Your task to perform on an android device: change alarm snooze length Image 0: 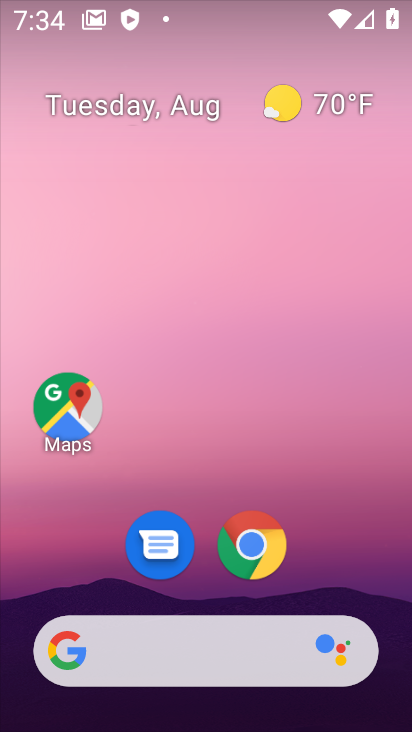
Step 0: drag from (162, 619) to (223, 147)
Your task to perform on an android device: change alarm snooze length Image 1: 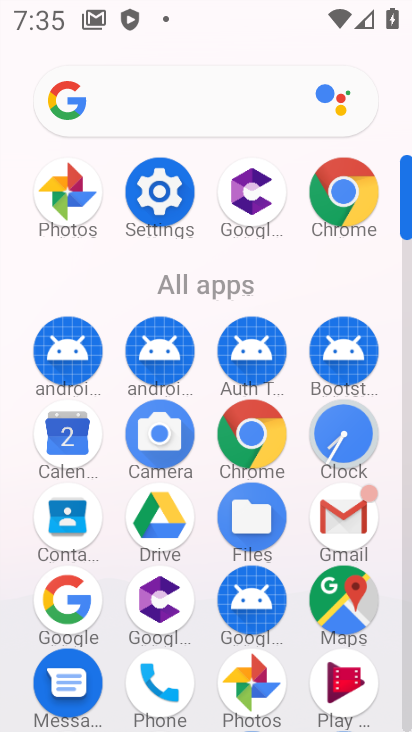
Step 1: drag from (178, 477) to (212, 246)
Your task to perform on an android device: change alarm snooze length Image 2: 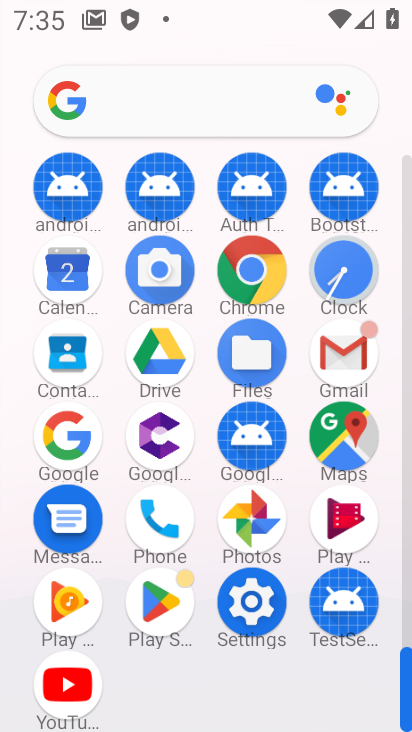
Step 2: click (334, 310)
Your task to perform on an android device: change alarm snooze length Image 3: 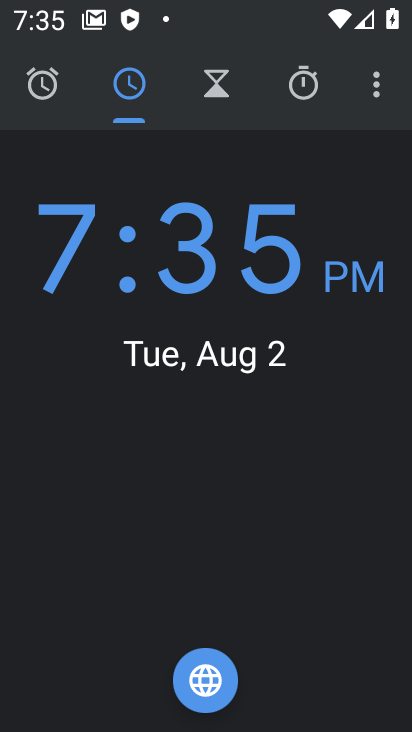
Step 3: click (383, 91)
Your task to perform on an android device: change alarm snooze length Image 4: 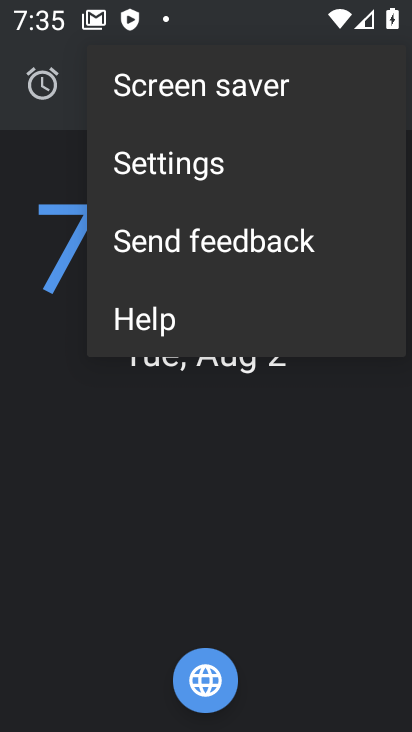
Step 4: click (225, 162)
Your task to perform on an android device: change alarm snooze length Image 5: 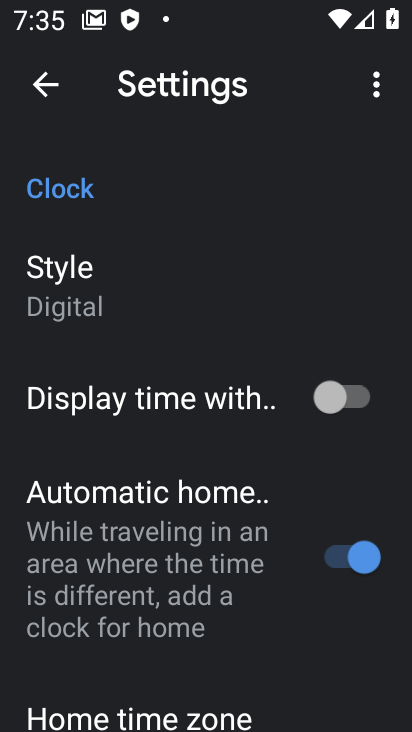
Step 5: drag from (127, 524) to (155, 150)
Your task to perform on an android device: change alarm snooze length Image 6: 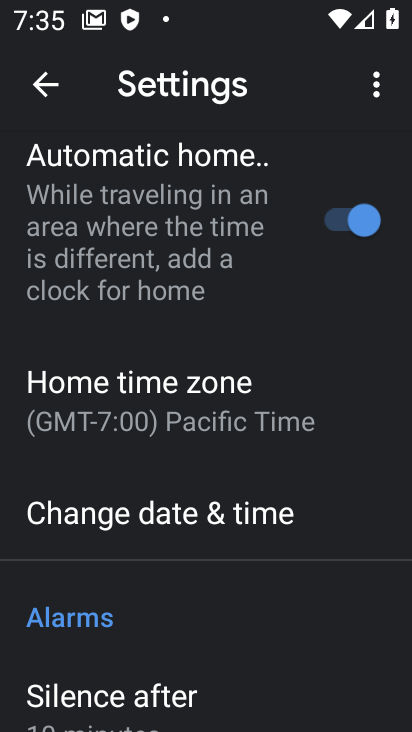
Step 6: drag from (189, 559) to (226, 299)
Your task to perform on an android device: change alarm snooze length Image 7: 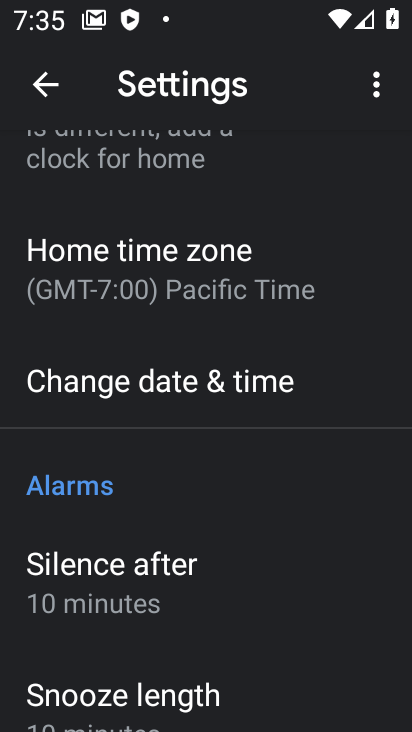
Step 7: drag from (219, 604) to (219, 364)
Your task to perform on an android device: change alarm snooze length Image 8: 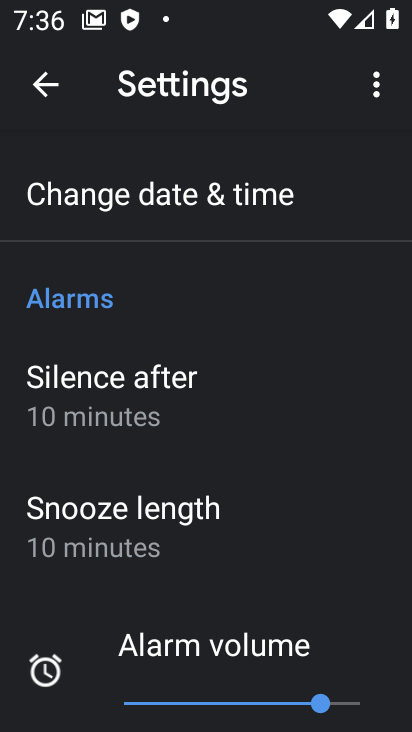
Step 8: click (151, 508)
Your task to perform on an android device: change alarm snooze length Image 9: 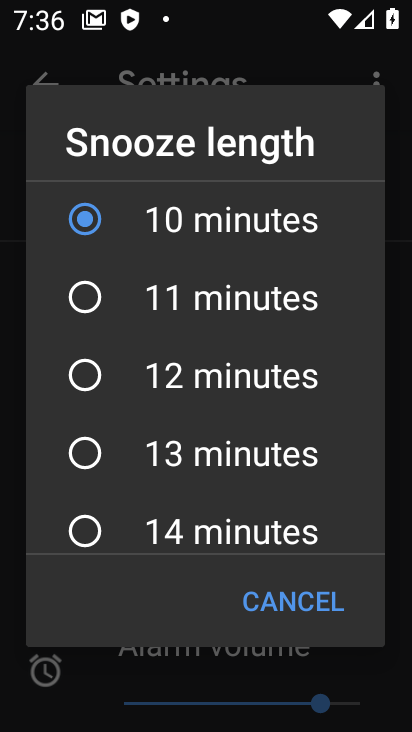
Step 9: click (98, 381)
Your task to perform on an android device: change alarm snooze length Image 10: 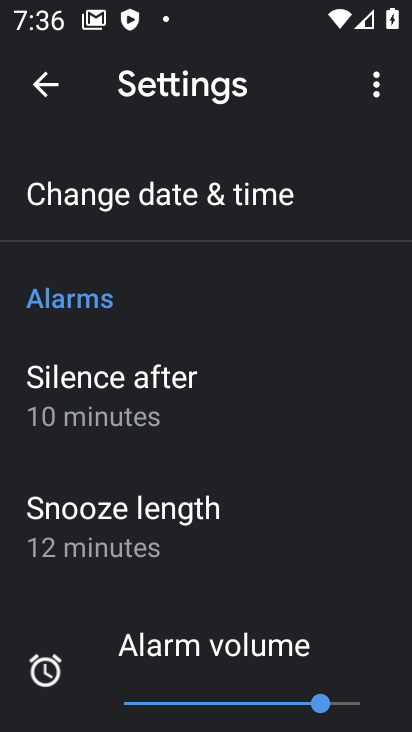
Step 10: task complete